Your task to perform on an android device: Show me recent news Image 0: 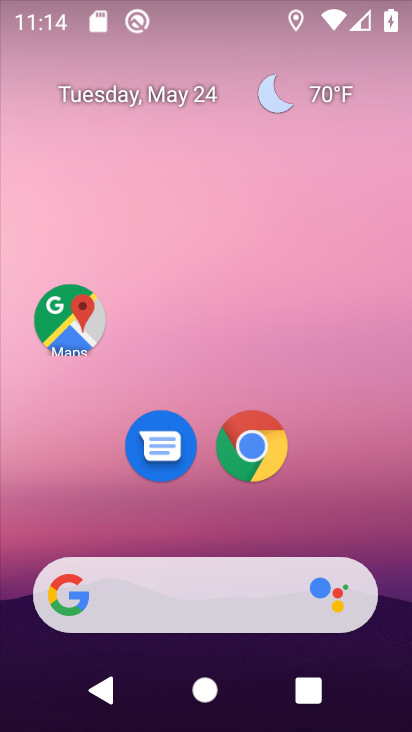
Step 0: drag from (255, 550) to (221, 138)
Your task to perform on an android device: Show me recent news Image 1: 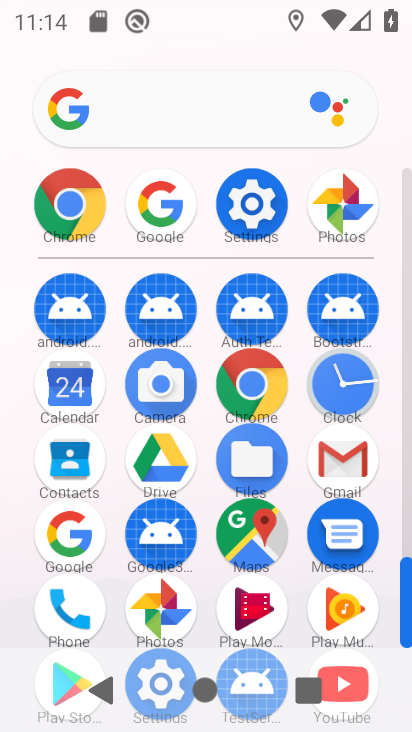
Step 1: drag from (211, 263) to (209, 124)
Your task to perform on an android device: Show me recent news Image 2: 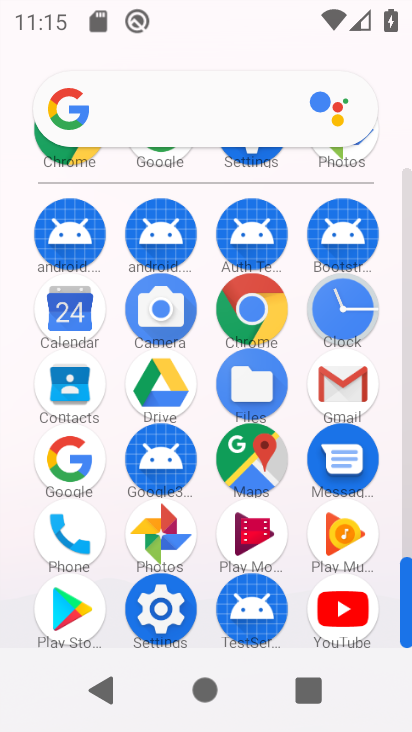
Step 2: click (90, 468)
Your task to perform on an android device: Show me recent news Image 3: 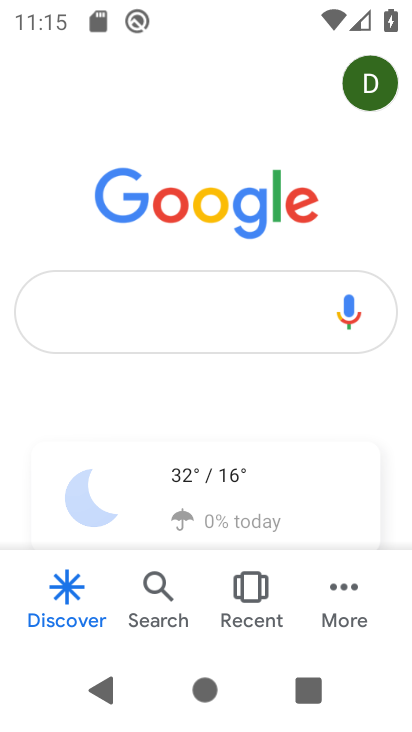
Step 3: task complete